Your task to perform on an android device: turn on the 12-hour format for clock Image 0: 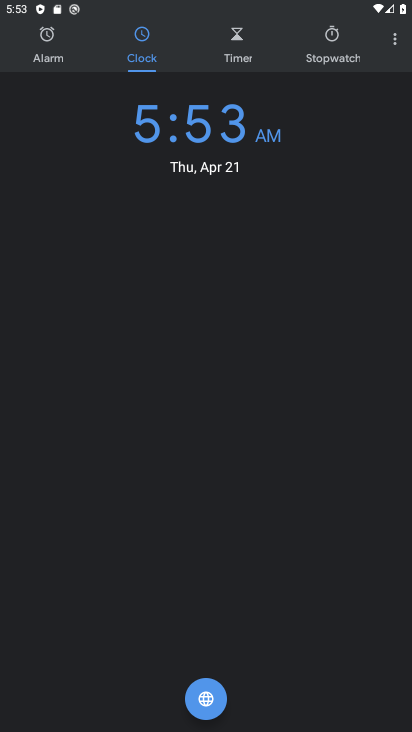
Step 0: press home button
Your task to perform on an android device: turn on the 12-hour format for clock Image 1: 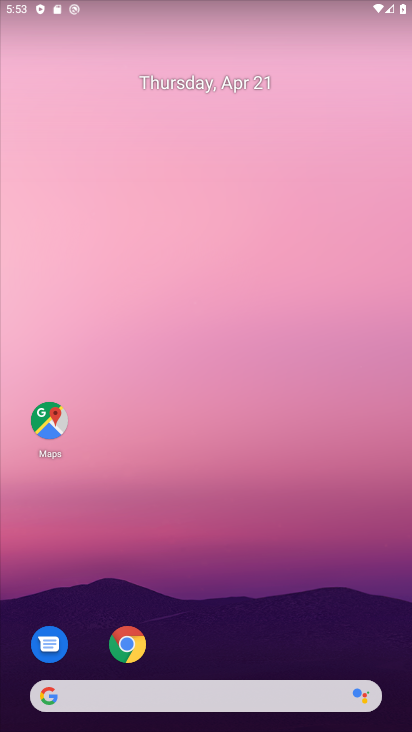
Step 1: drag from (250, 487) to (168, 6)
Your task to perform on an android device: turn on the 12-hour format for clock Image 2: 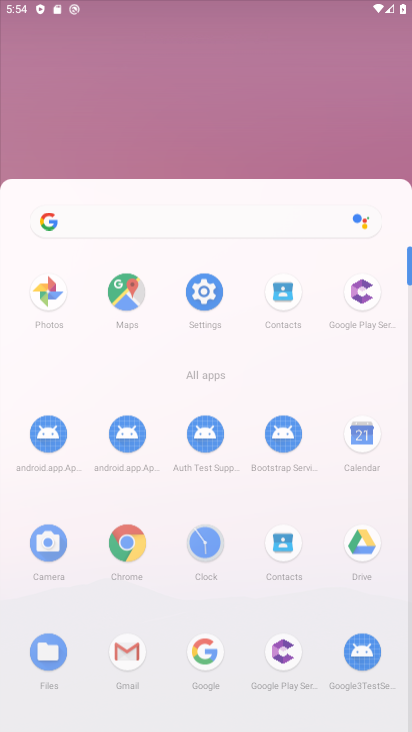
Step 2: click (169, 95)
Your task to perform on an android device: turn on the 12-hour format for clock Image 3: 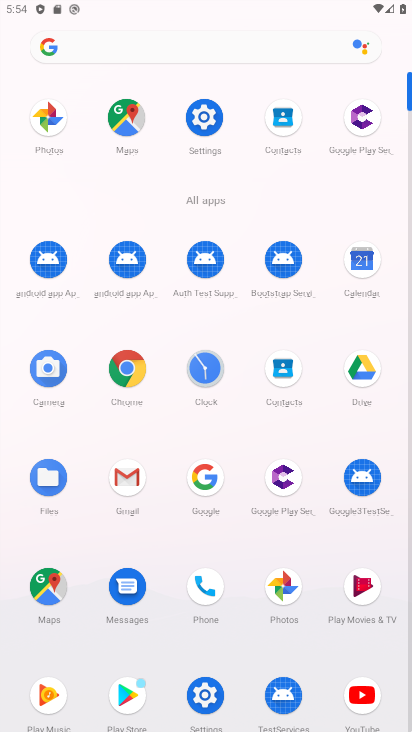
Step 3: click (199, 359)
Your task to perform on an android device: turn on the 12-hour format for clock Image 4: 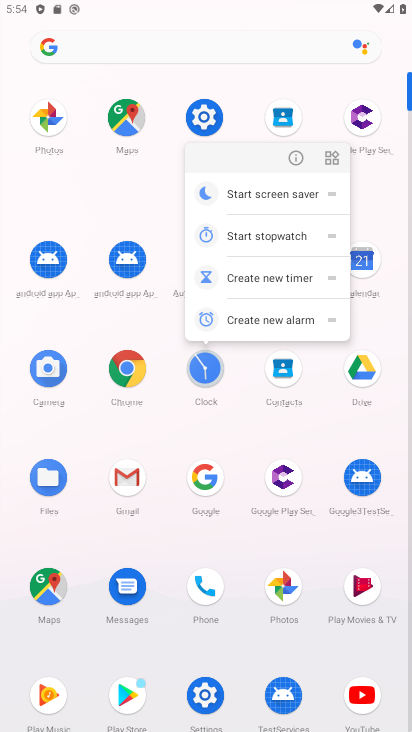
Step 4: click (202, 359)
Your task to perform on an android device: turn on the 12-hour format for clock Image 5: 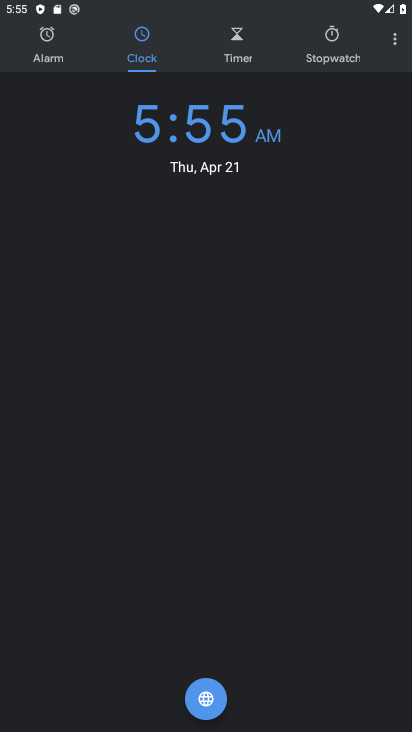
Step 5: click (387, 55)
Your task to perform on an android device: turn on the 12-hour format for clock Image 6: 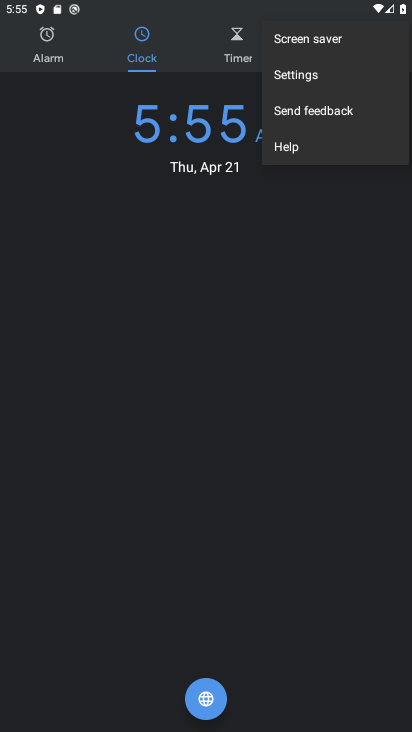
Step 6: click (321, 87)
Your task to perform on an android device: turn on the 12-hour format for clock Image 7: 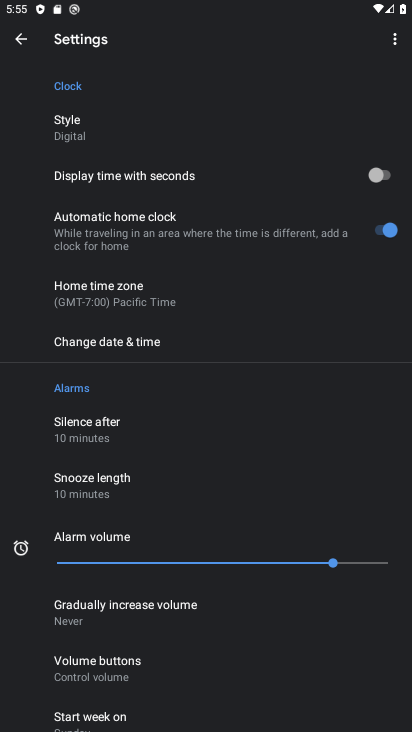
Step 7: click (84, 353)
Your task to perform on an android device: turn on the 12-hour format for clock Image 8: 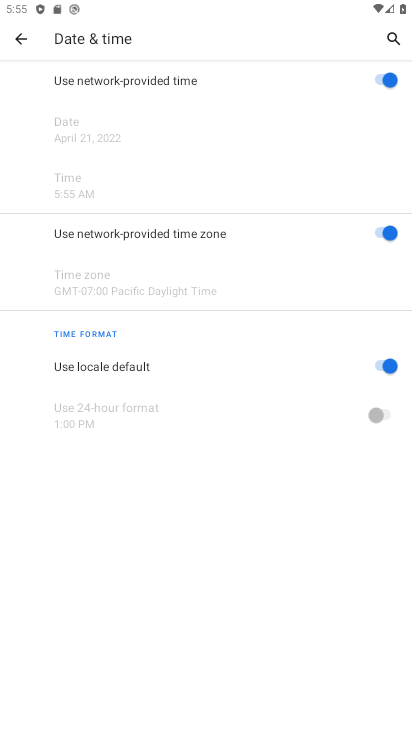
Step 8: click (171, 371)
Your task to perform on an android device: turn on the 12-hour format for clock Image 9: 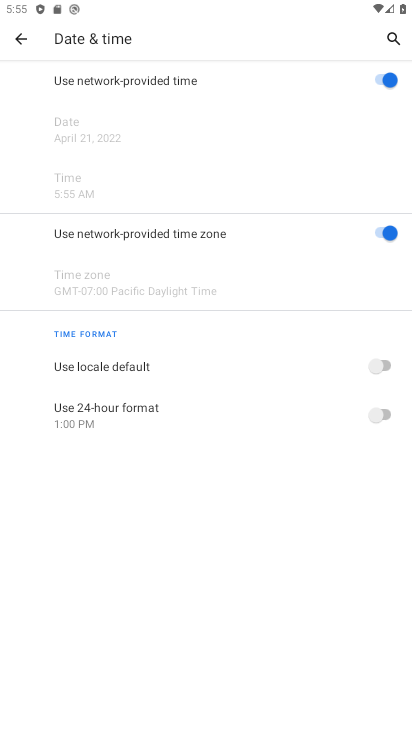
Step 9: click (315, 431)
Your task to perform on an android device: turn on the 12-hour format for clock Image 10: 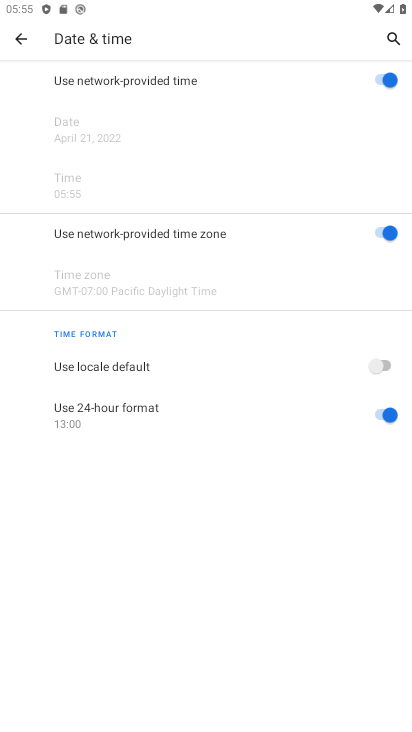
Step 10: task complete